Your task to perform on an android device: Go to network settings Image 0: 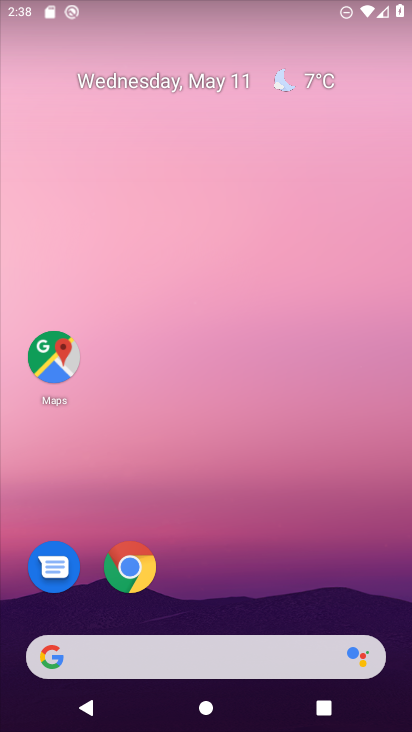
Step 0: drag from (352, 553) to (276, 293)
Your task to perform on an android device: Go to network settings Image 1: 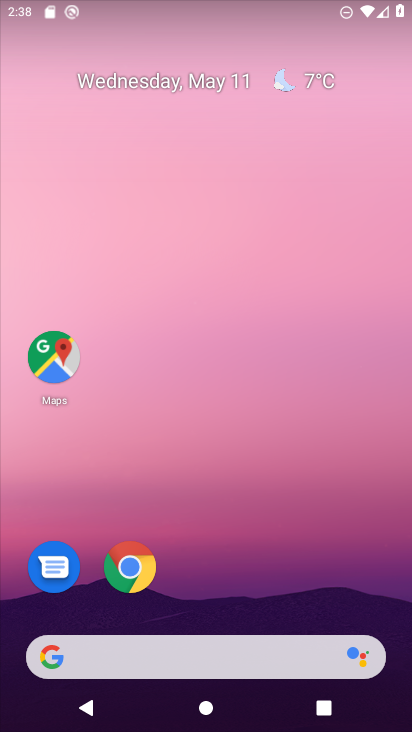
Step 1: drag from (325, 632) to (224, 217)
Your task to perform on an android device: Go to network settings Image 2: 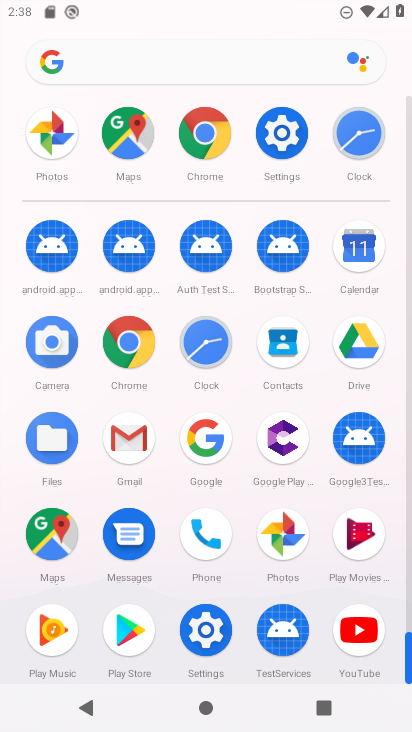
Step 2: click (298, 135)
Your task to perform on an android device: Go to network settings Image 3: 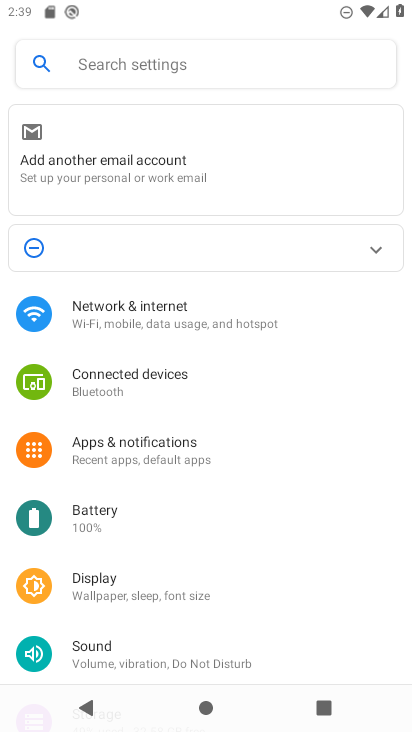
Step 3: click (262, 305)
Your task to perform on an android device: Go to network settings Image 4: 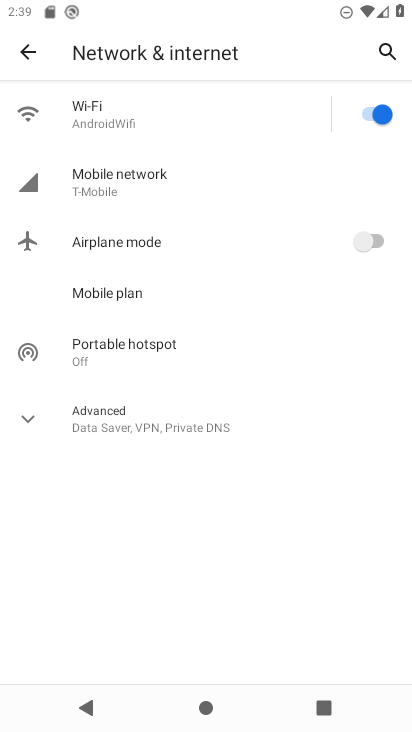
Step 4: task complete